Your task to perform on an android device: turn off airplane mode Image 0: 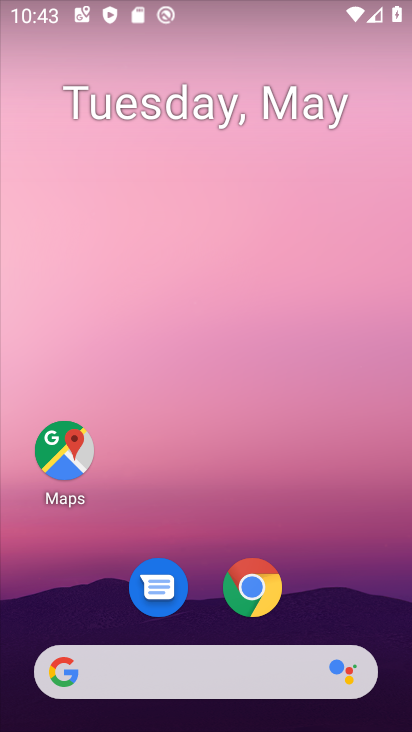
Step 0: drag from (318, 584) to (238, 68)
Your task to perform on an android device: turn off airplane mode Image 1: 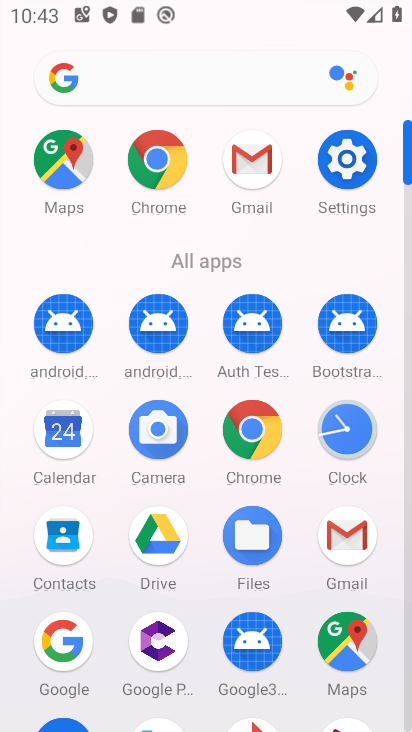
Step 1: drag from (27, 578) to (16, 244)
Your task to perform on an android device: turn off airplane mode Image 2: 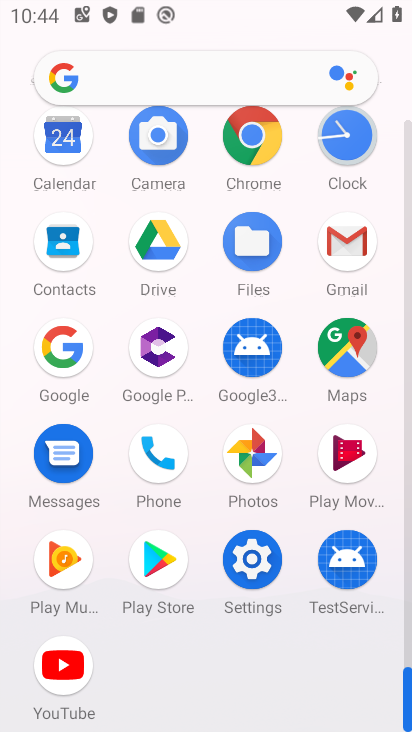
Step 2: click (255, 557)
Your task to perform on an android device: turn off airplane mode Image 3: 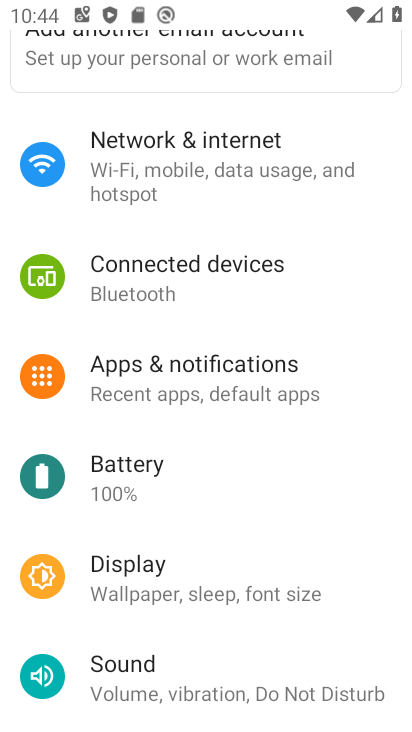
Step 3: drag from (265, 177) to (254, 550)
Your task to perform on an android device: turn off airplane mode Image 4: 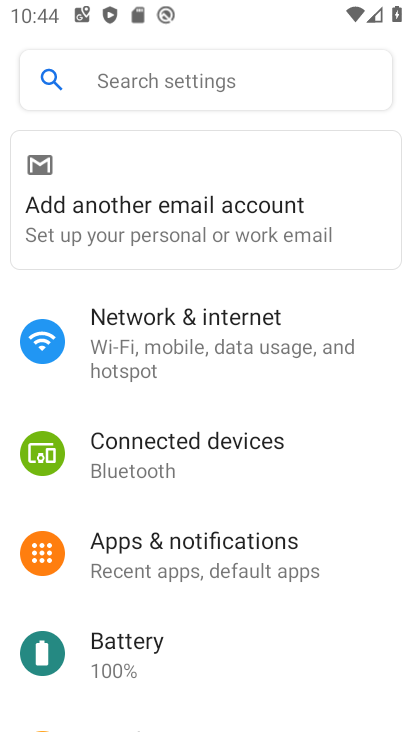
Step 4: click (237, 342)
Your task to perform on an android device: turn off airplane mode Image 5: 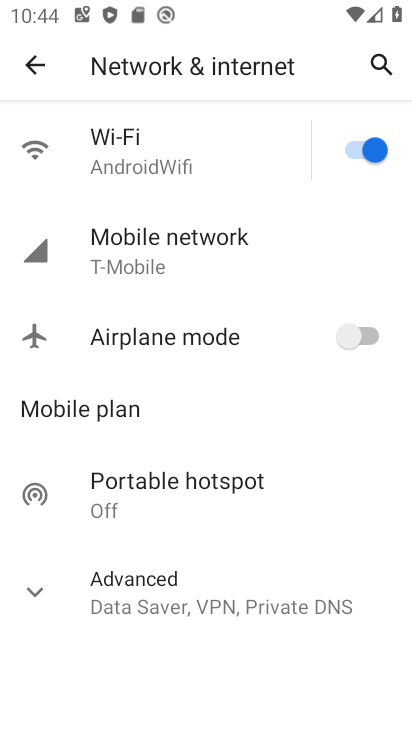
Step 5: task complete